Your task to perform on an android device: turn on wifi Image 0: 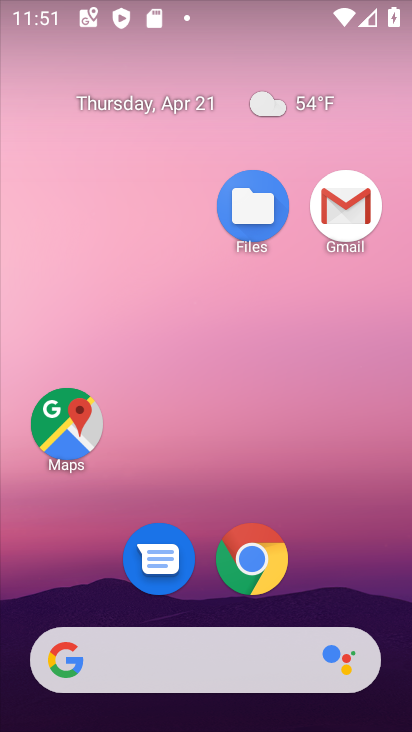
Step 0: drag from (153, 5) to (175, 634)
Your task to perform on an android device: turn on wifi Image 1: 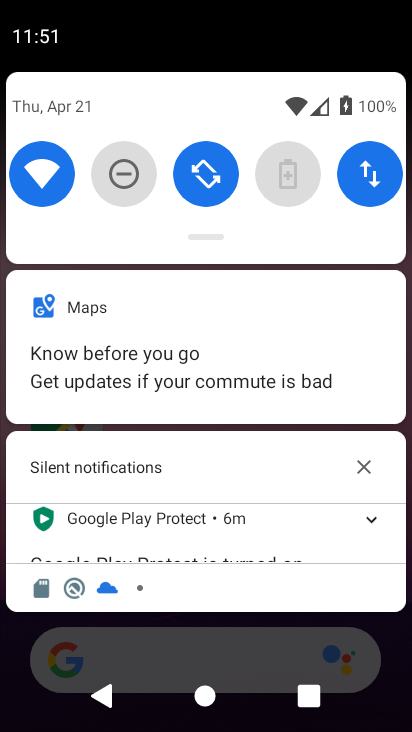
Step 1: click (41, 181)
Your task to perform on an android device: turn on wifi Image 2: 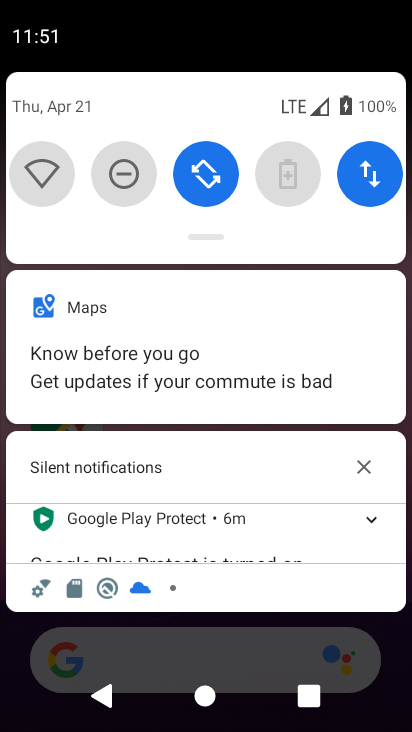
Step 2: task complete